Your task to perform on an android device: What's the weather going to be tomorrow? Image 0: 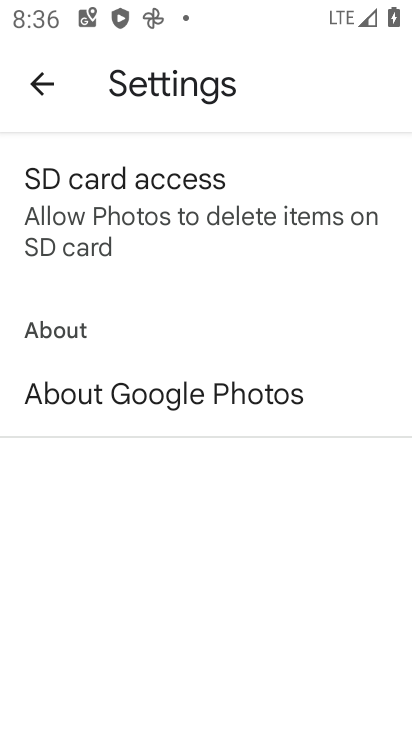
Step 0: press home button
Your task to perform on an android device: What's the weather going to be tomorrow? Image 1: 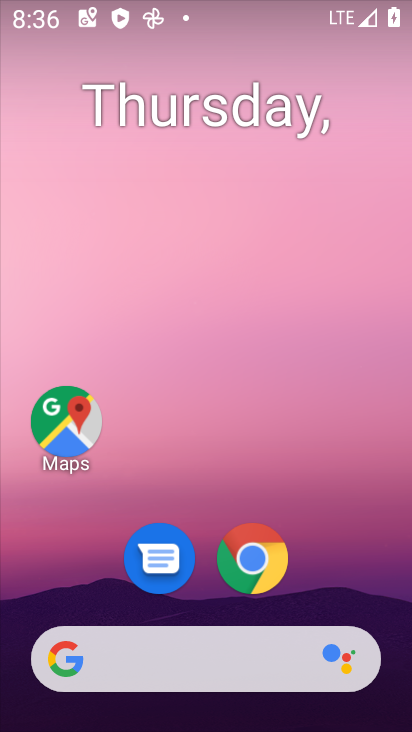
Step 1: drag from (175, 627) to (206, 125)
Your task to perform on an android device: What's the weather going to be tomorrow? Image 2: 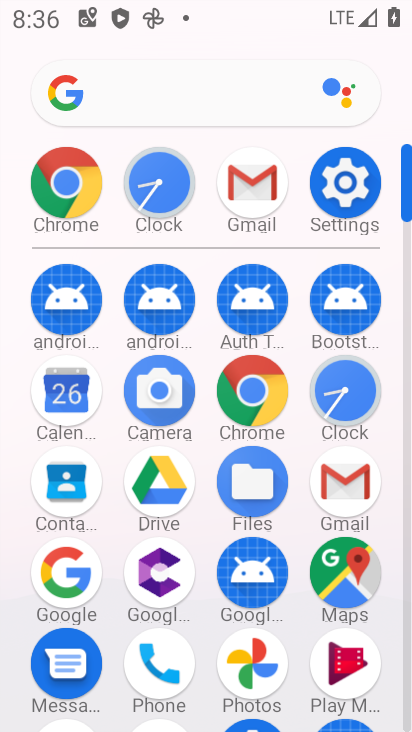
Step 2: click (61, 576)
Your task to perform on an android device: What's the weather going to be tomorrow? Image 3: 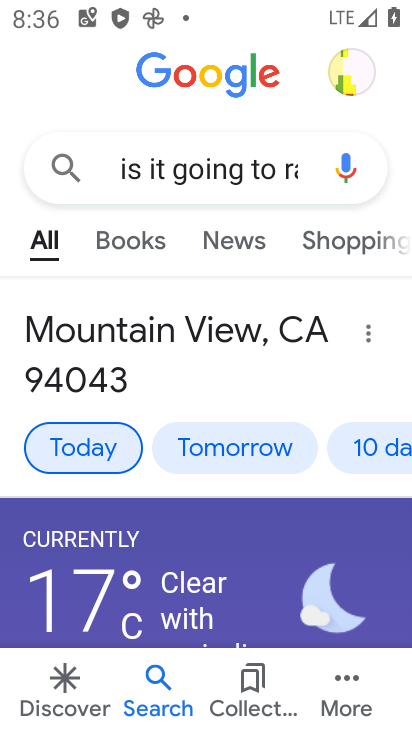
Step 3: click (205, 171)
Your task to perform on an android device: What's the weather going to be tomorrow? Image 4: 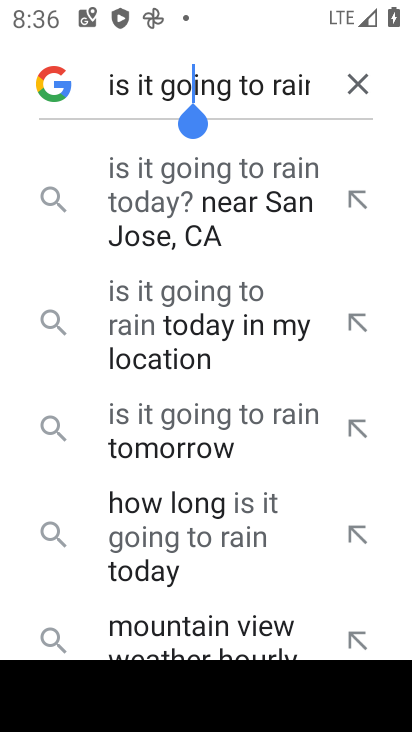
Step 4: click (354, 79)
Your task to perform on an android device: What's the weather going to be tomorrow? Image 5: 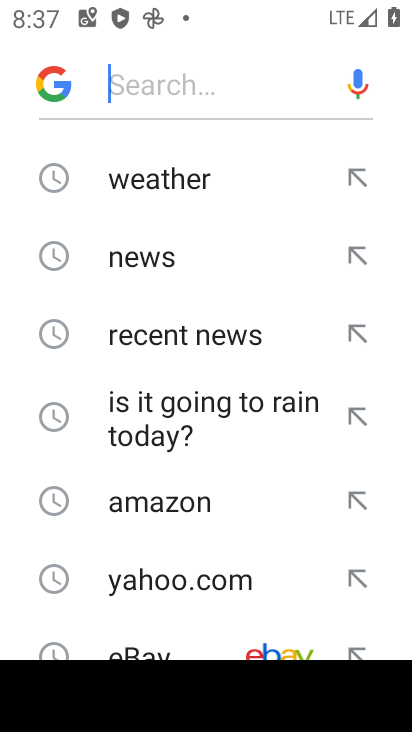
Step 5: drag from (202, 563) to (237, 111)
Your task to perform on an android device: What's the weather going to be tomorrow? Image 6: 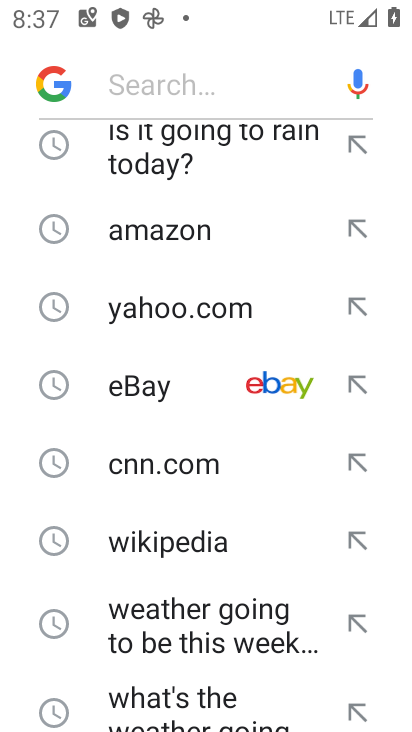
Step 6: drag from (204, 631) to (229, 374)
Your task to perform on an android device: What's the weather going to be tomorrow? Image 7: 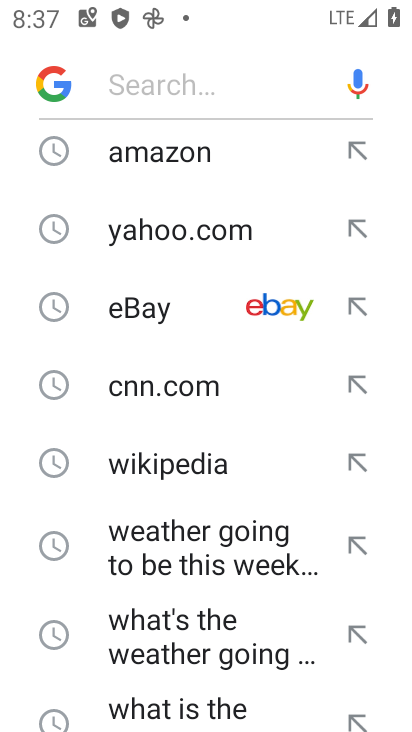
Step 7: drag from (178, 681) to (206, 477)
Your task to perform on an android device: What's the weather going to be tomorrow? Image 8: 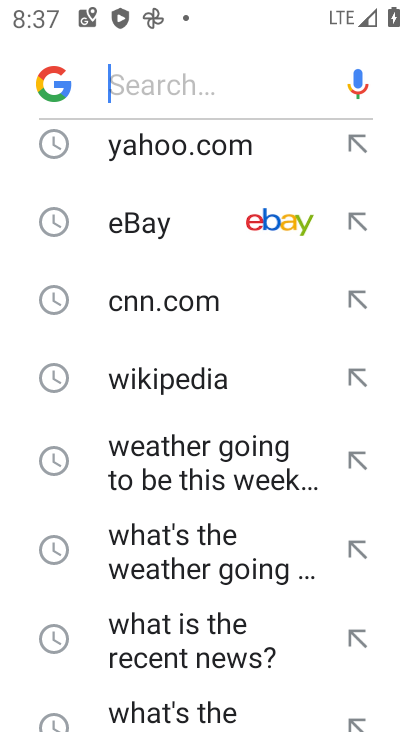
Step 8: click (185, 560)
Your task to perform on an android device: What's the weather going to be tomorrow? Image 9: 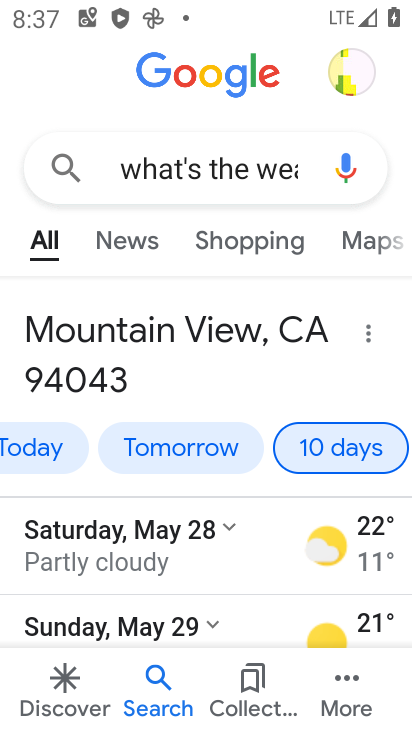
Step 9: click (137, 443)
Your task to perform on an android device: What's the weather going to be tomorrow? Image 10: 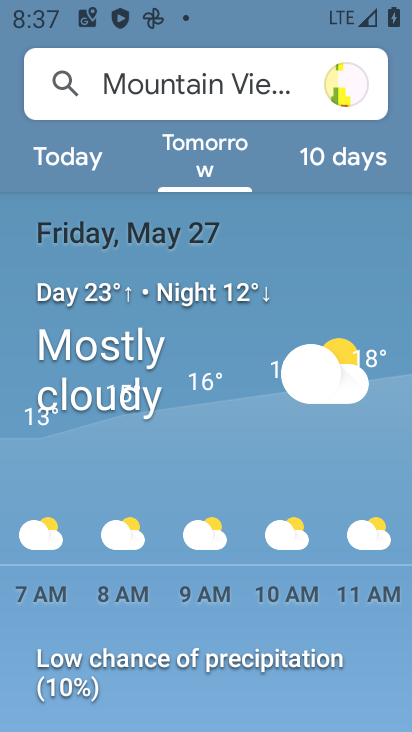
Step 10: task complete